Your task to perform on an android device: open app "VLC for Android" (install if not already installed) and go to login screen Image 0: 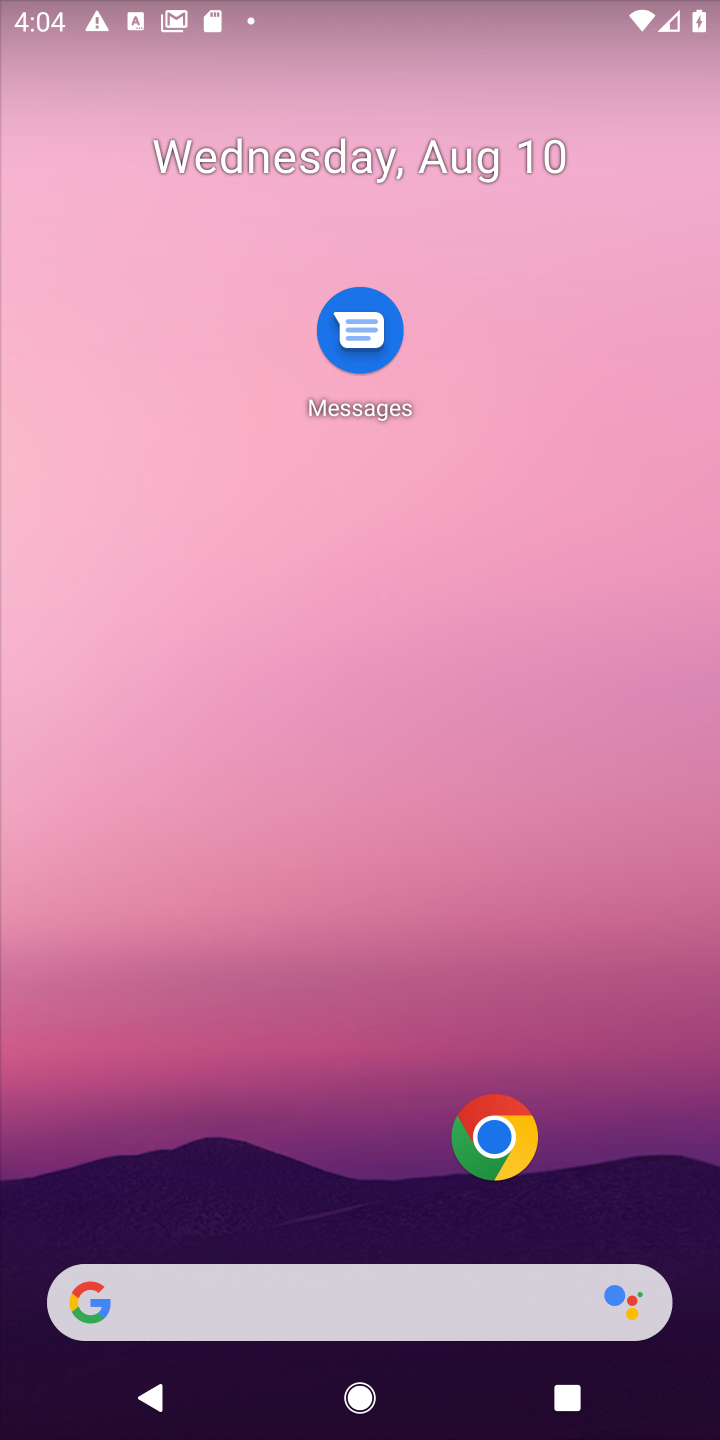
Step 0: drag from (311, 1208) to (503, 224)
Your task to perform on an android device: open app "VLC for Android" (install if not already installed) and go to login screen Image 1: 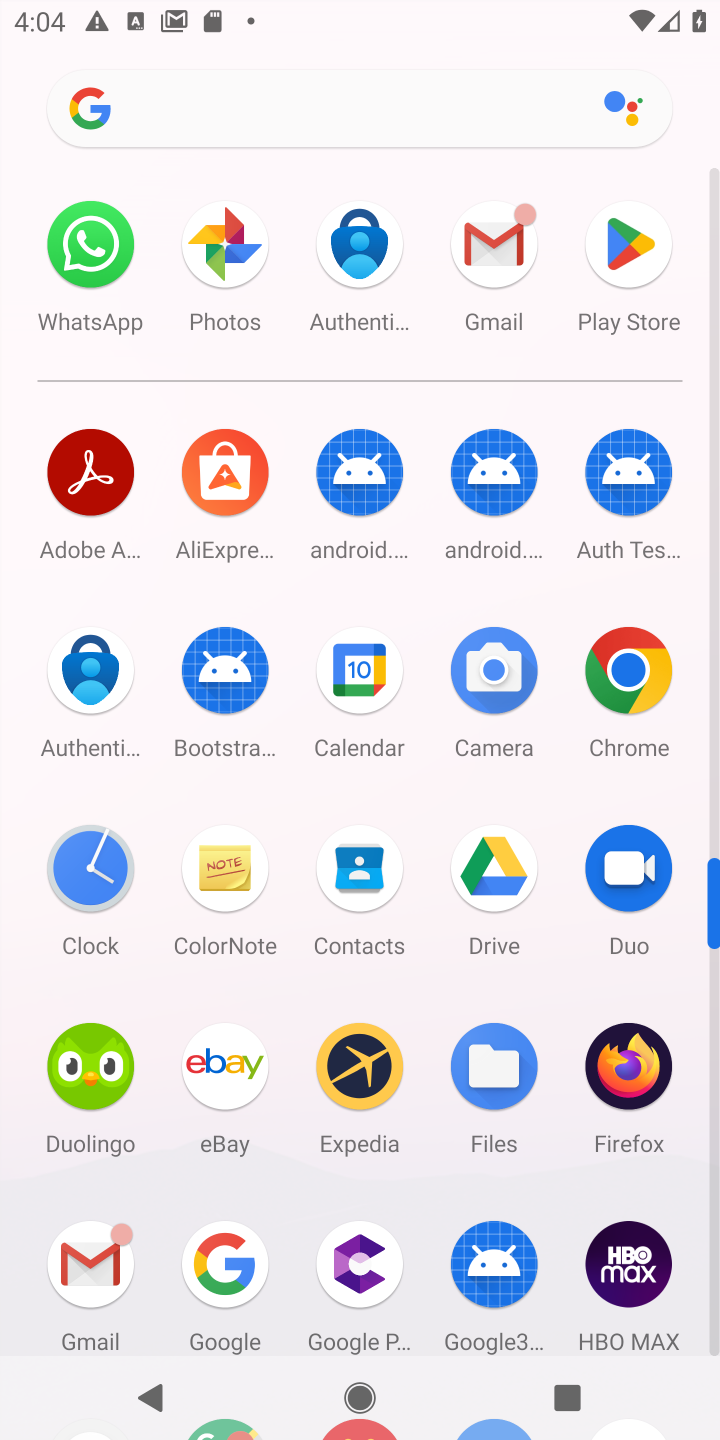
Step 1: click (635, 276)
Your task to perform on an android device: open app "VLC for Android" (install if not already installed) and go to login screen Image 2: 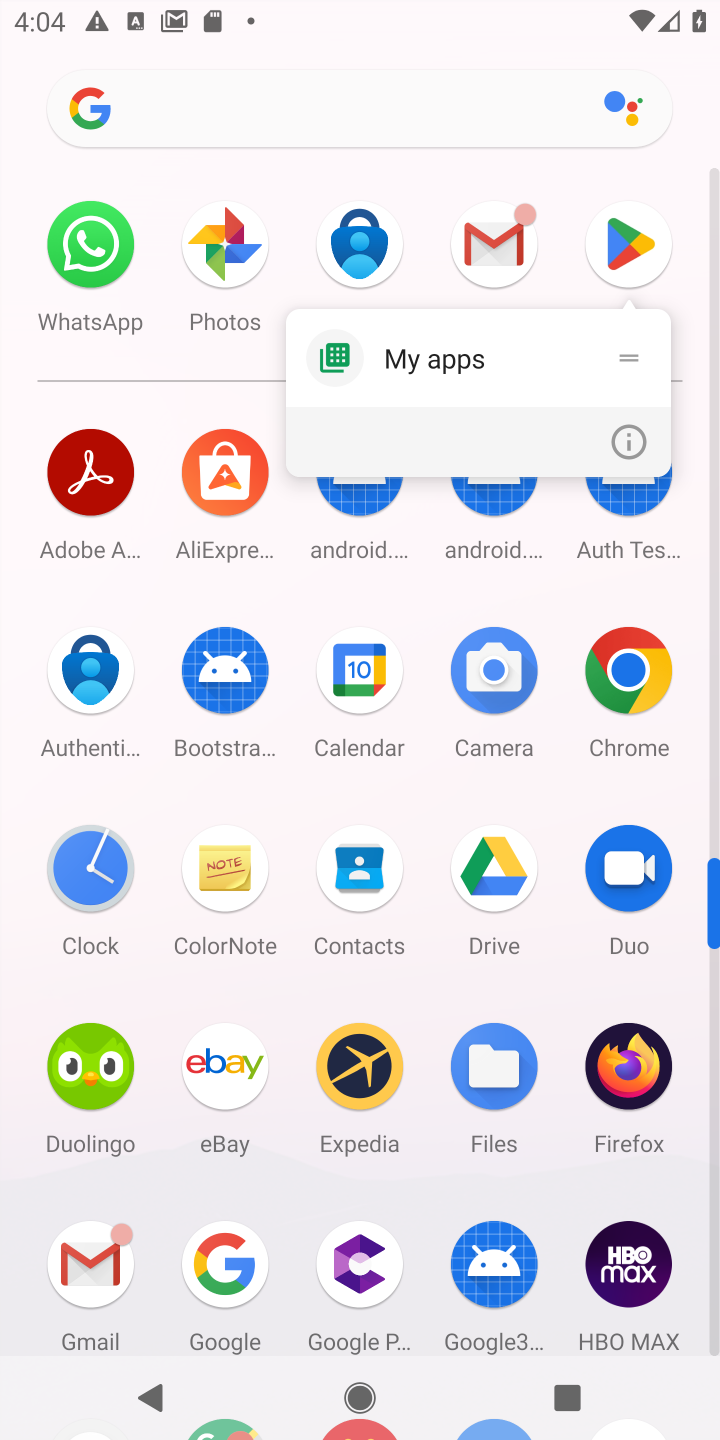
Step 2: click (635, 276)
Your task to perform on an android device: open app "VLC for Android" (install if not already installed) and go to login screen Image 3: 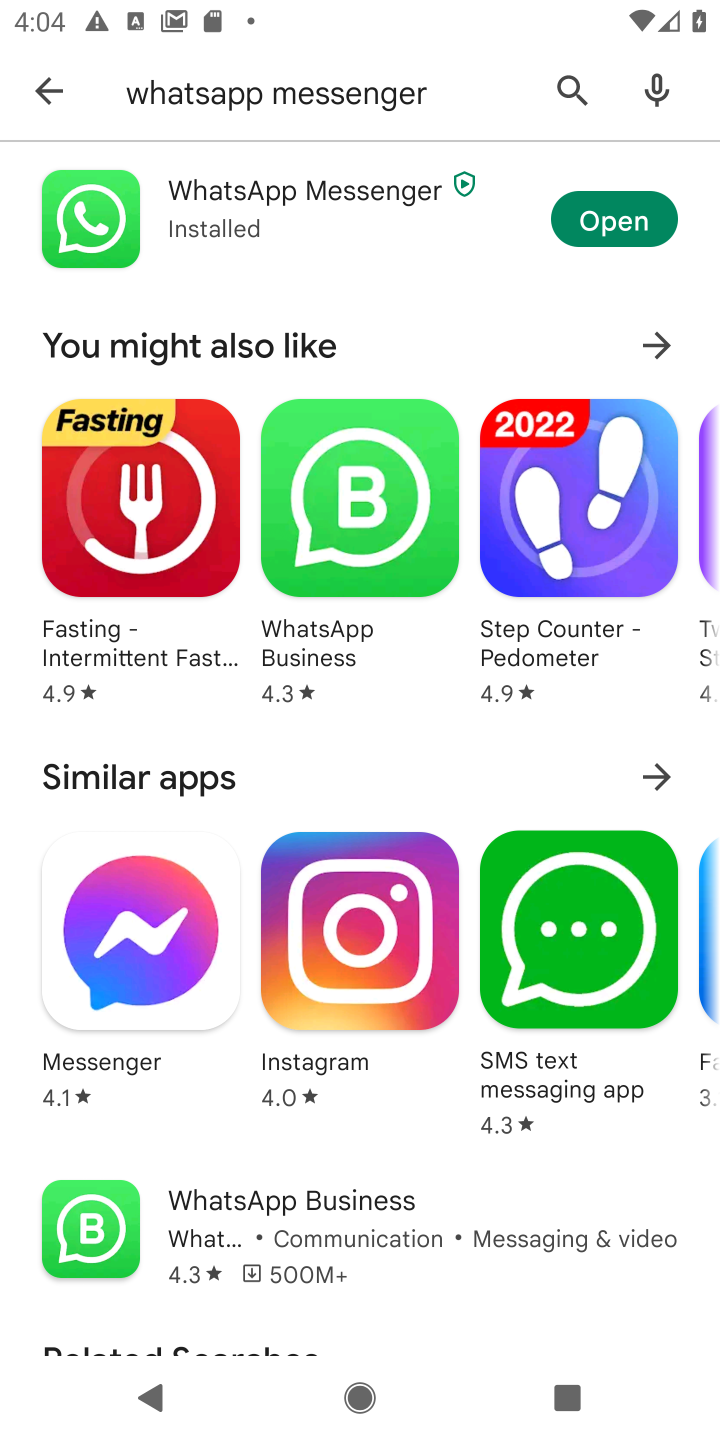
Step 3: click (408, 88)
Your task to perform on an android device: open app "VLC for Android" (install if not already installed) and go to login screen Image 4: 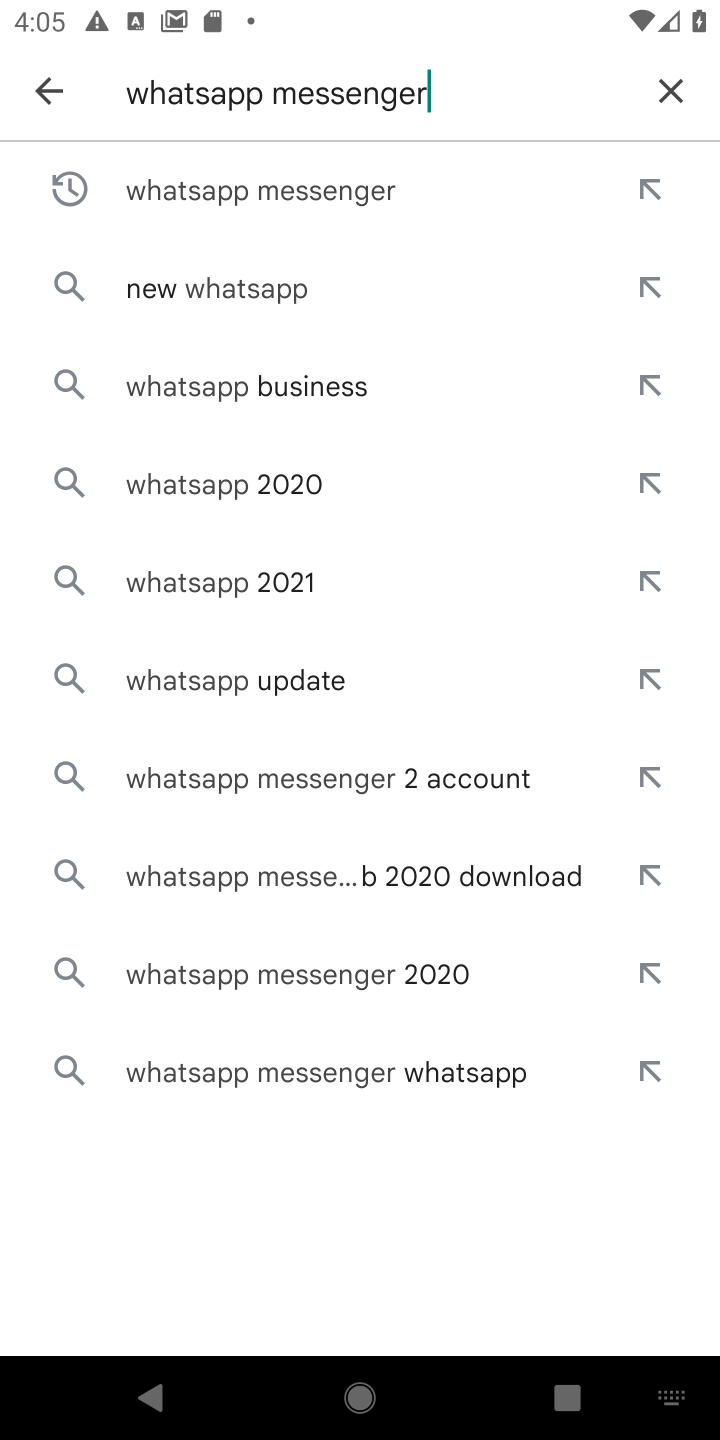
Step 4: click (667, 90)
Your task to perform on an android device: open app "VLC for Android" (install if not already installed) and go to login screen Image 5: 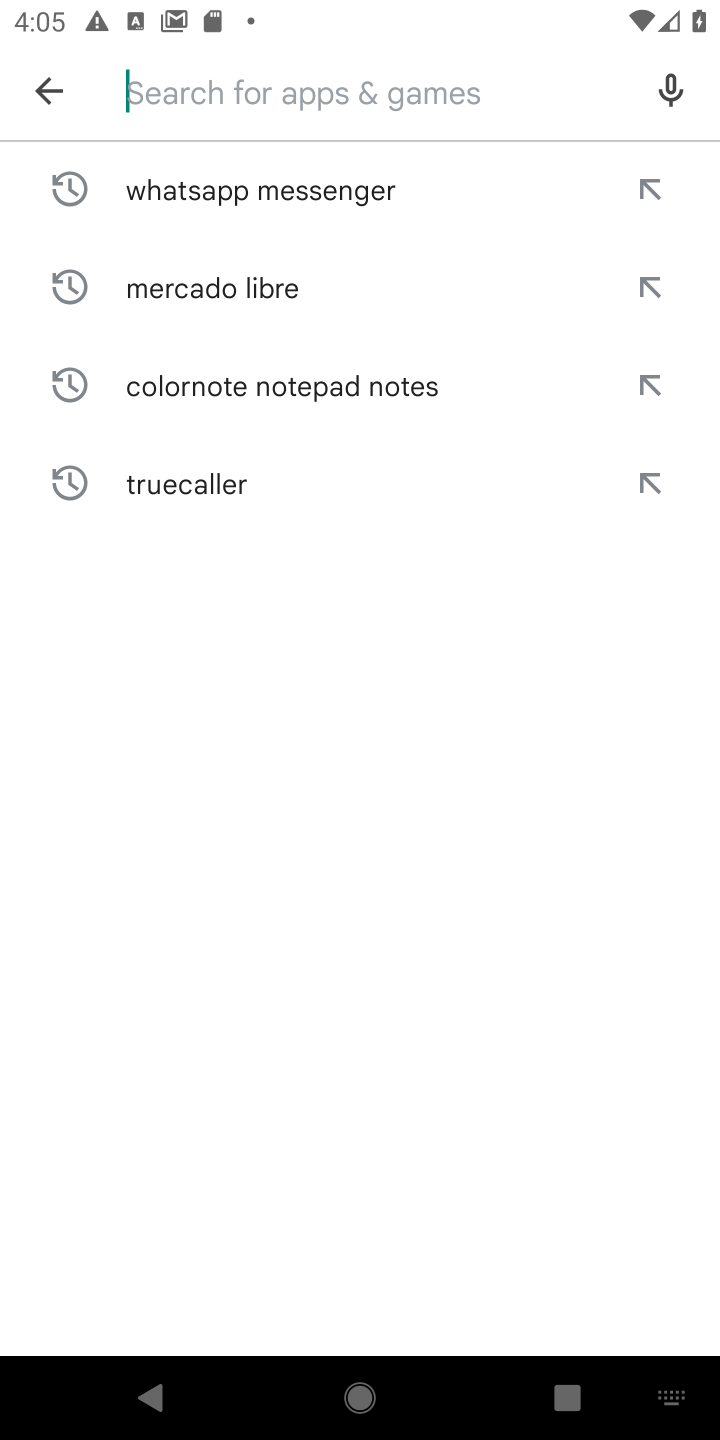
Step 5: type "vlc "
Your task to perform on an android device: open app "VLC for Android" (install if not already installed) and go to login screen Image 6: 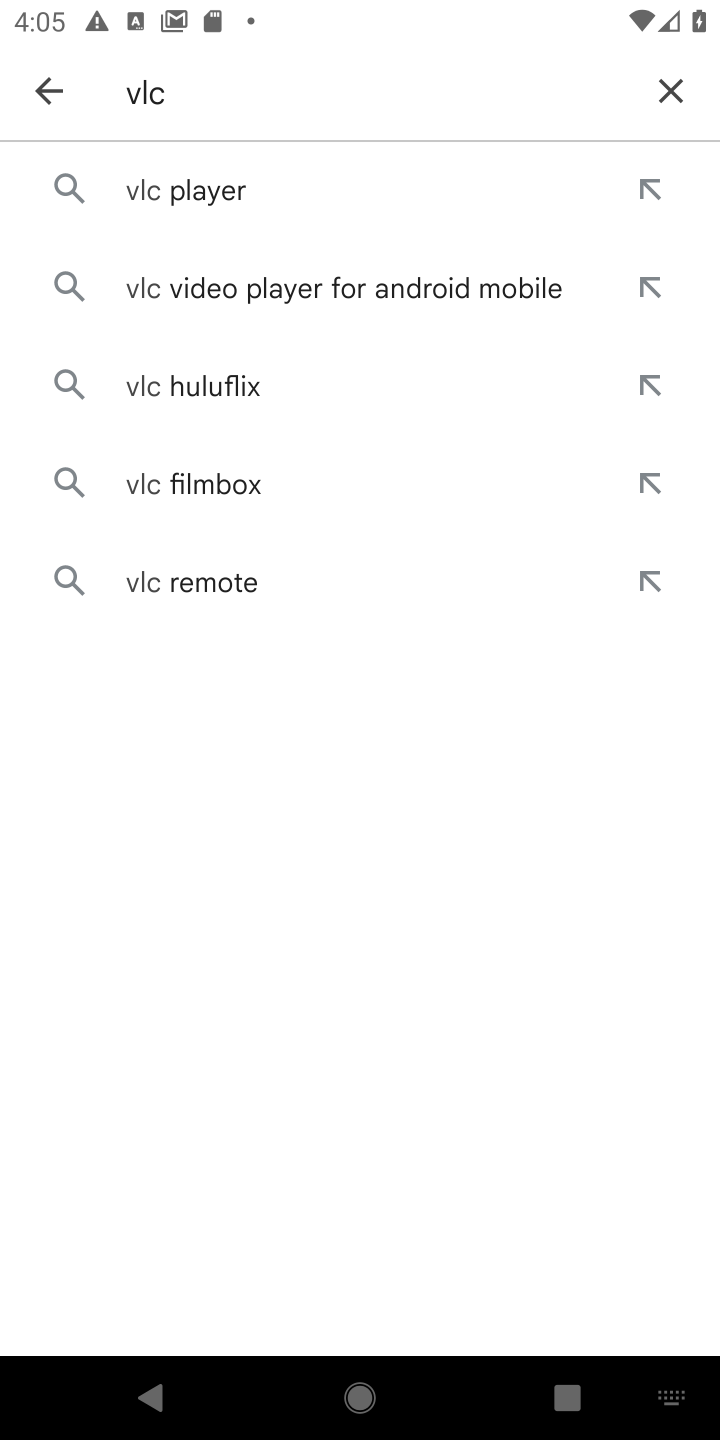
Step 6: click (210, 198)
Your task to perform on an android device: open app "VLC for Android" (install if not already installed) and go to login screen Image 7: 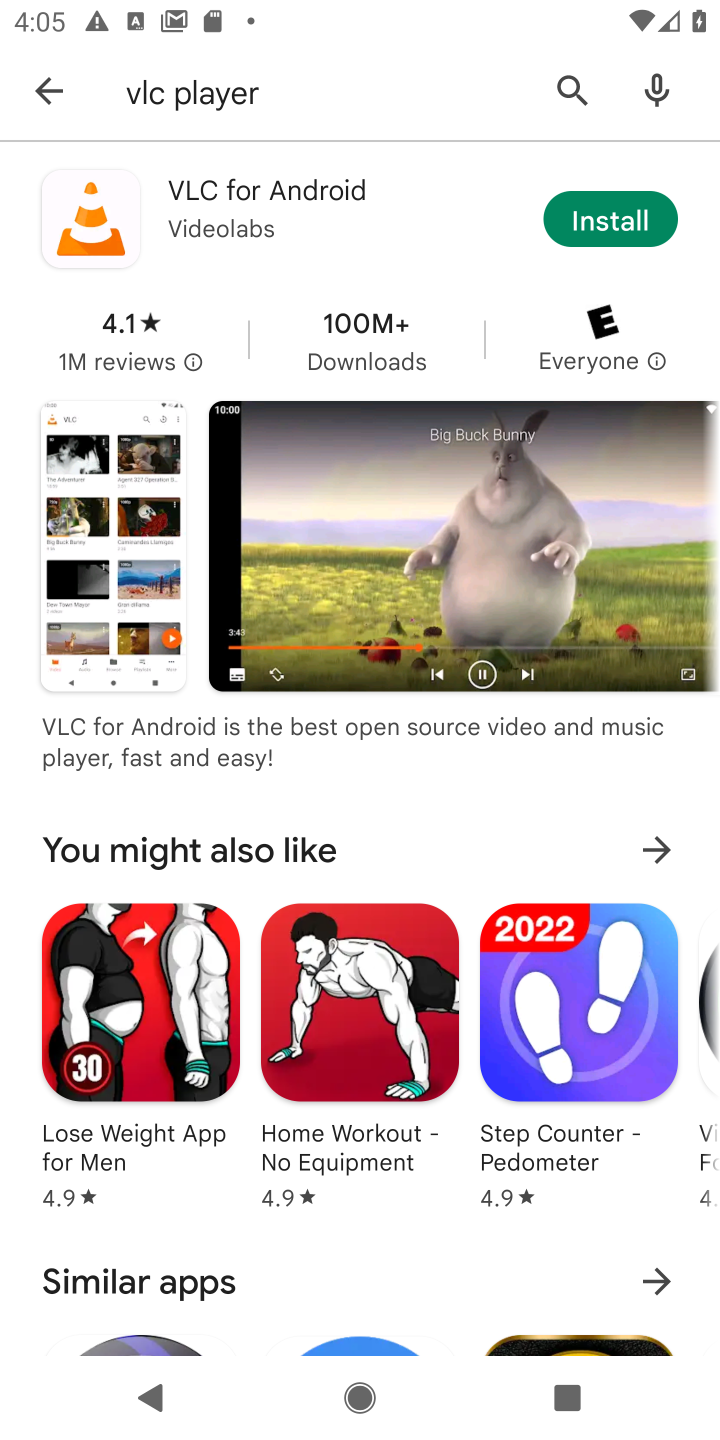
Step 7: click (600, 200)
Your task to perform on an android device: open app "VLC for Android" (install if not already installed) and go to login screen Image 8: 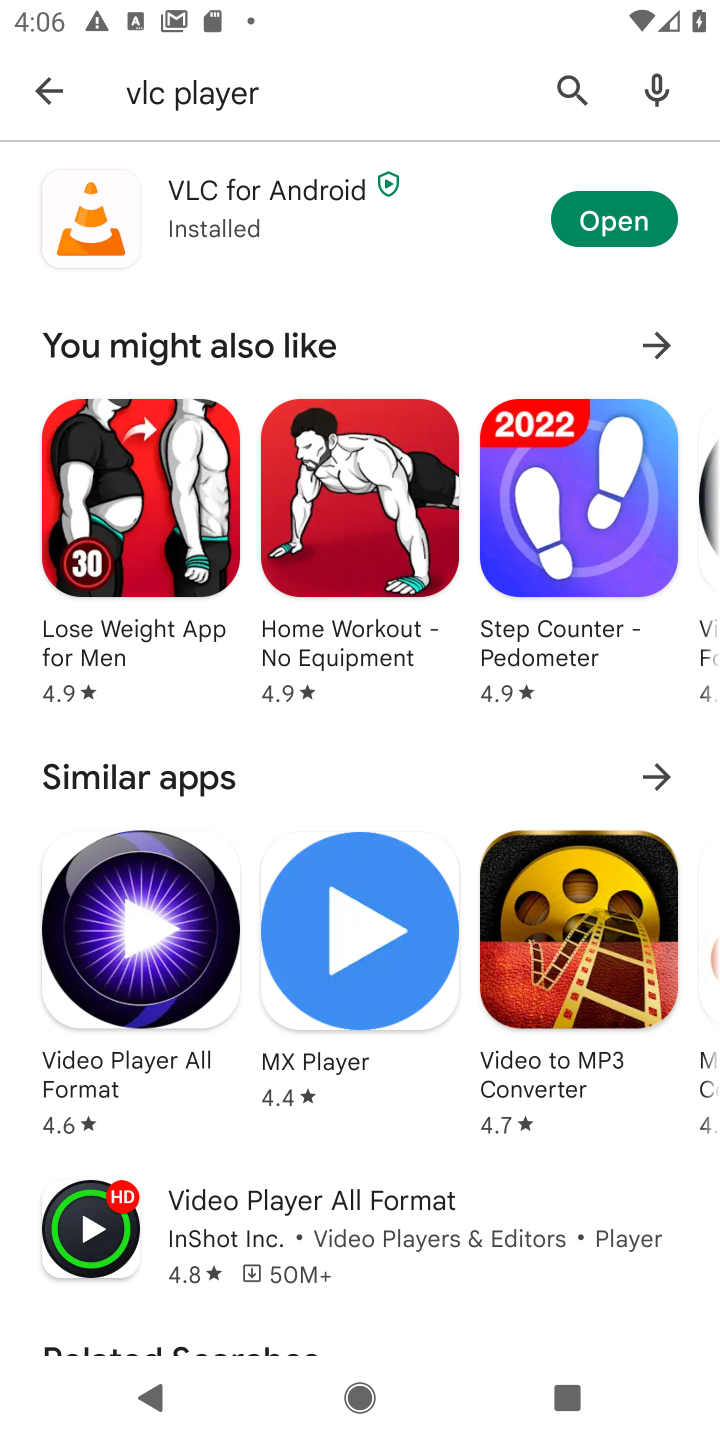
Step 8: click (623, 212)
Your task to perform on an android device: open app "VLC for Android" (install if not already installed) and go to login screen Image 9: 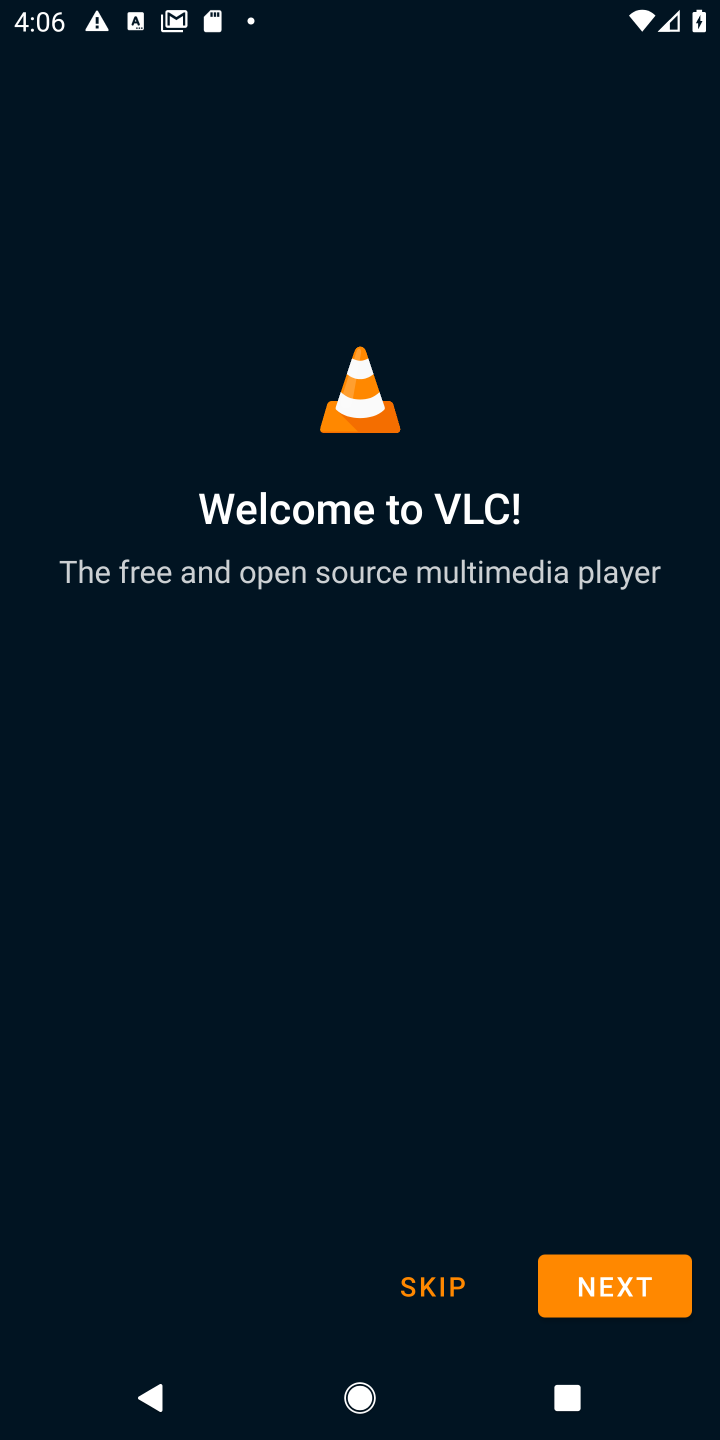
Step 9: click (423, 1268)
Your task to perform on an android device: open app "VLC for Android" (install if not already installed) and go to login screen Image 10: 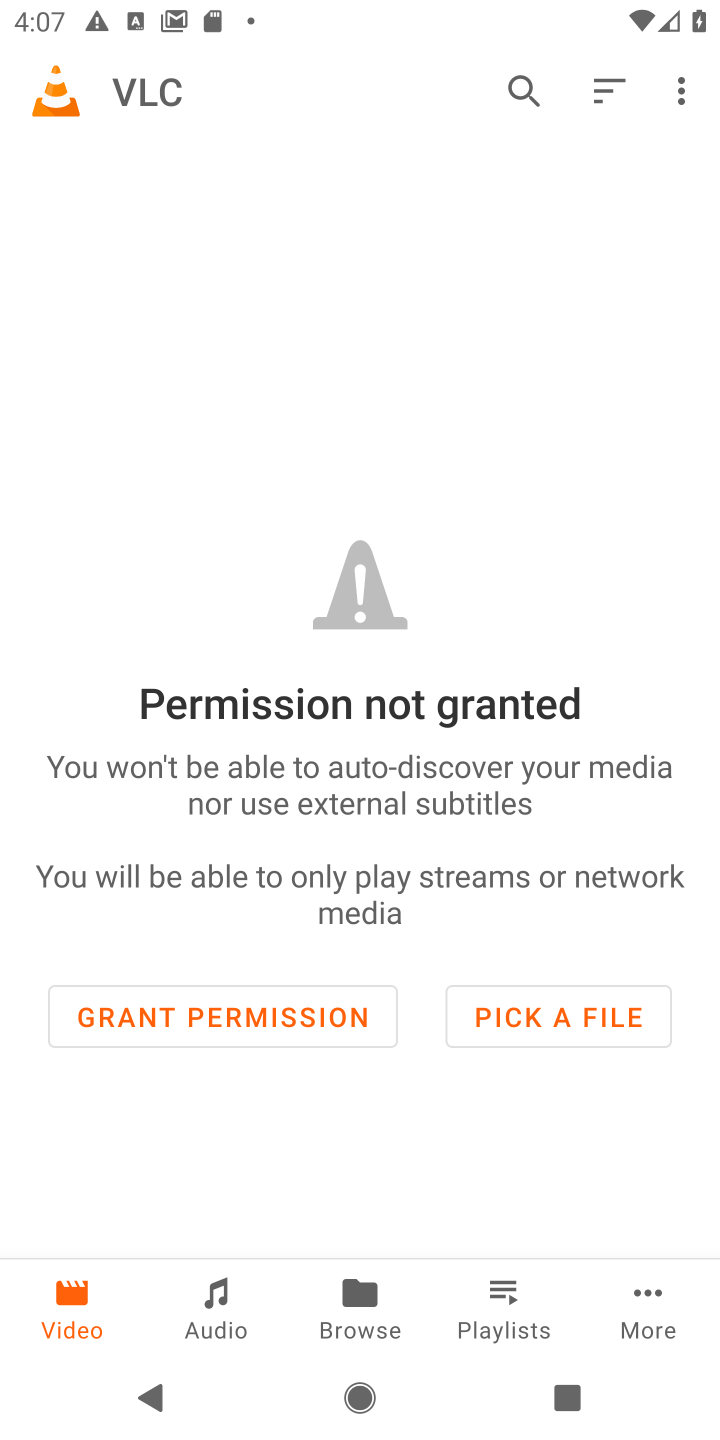
Step 10: task complete